Your task to perform on an android device: empty trash in google photos Image 0: 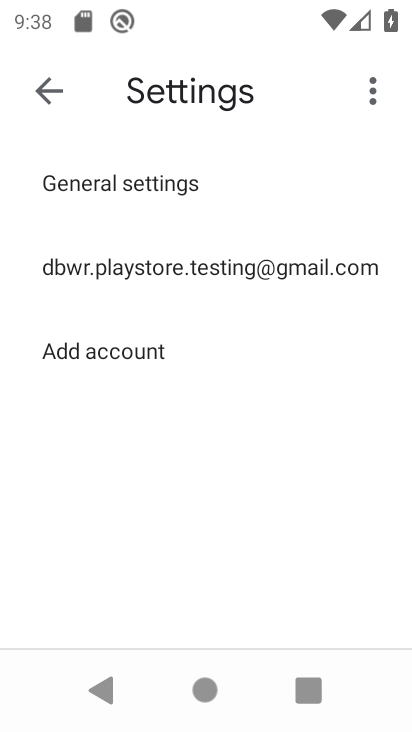
Step 0: click (283, 260)
Your task to perform on an android device: empty trash in google photos Image 1: 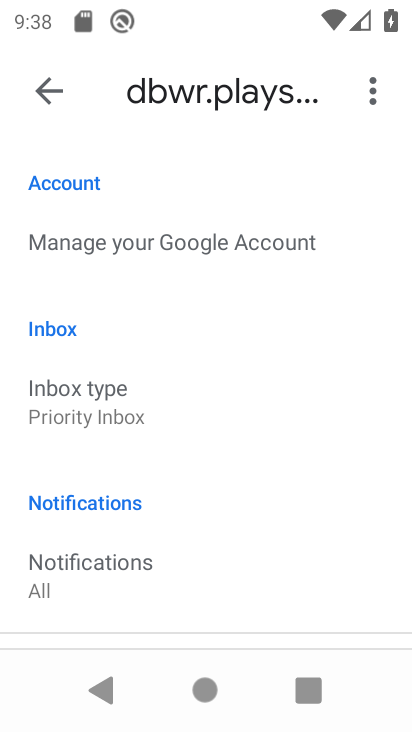
Step 1: press home button
Your task to perform on an android device: empty trash in google photos Image 2: 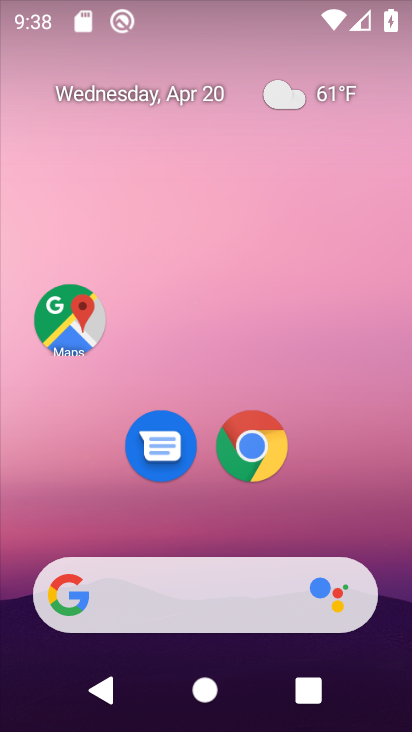
Step 2: drag from (365, 468) to (356, 144)
Your task to perform on an android device: empty trash in google photos Image 3: 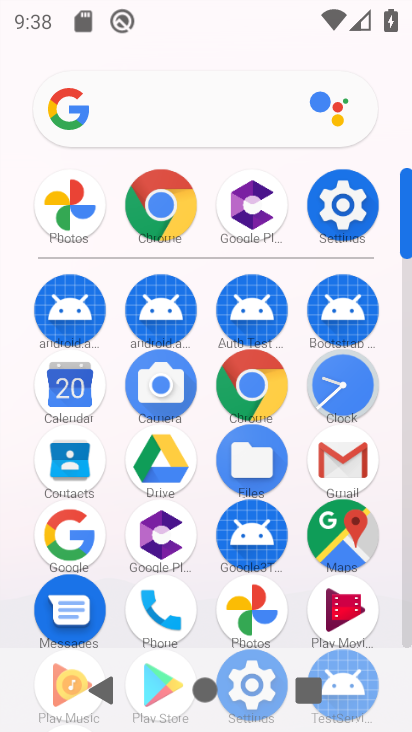
Step 3: click (257, 611)
Your task to perform on an android device: empty trash in google photos Image 4: 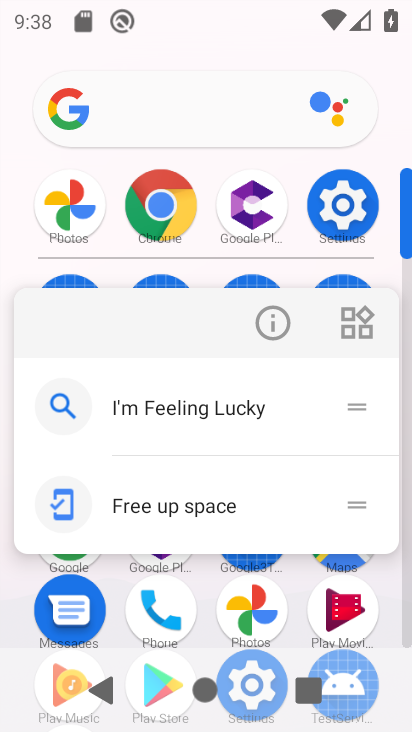
Step 4: click (253, 606)
Your task to perform on an android device: empty trash in google photos Image 5: 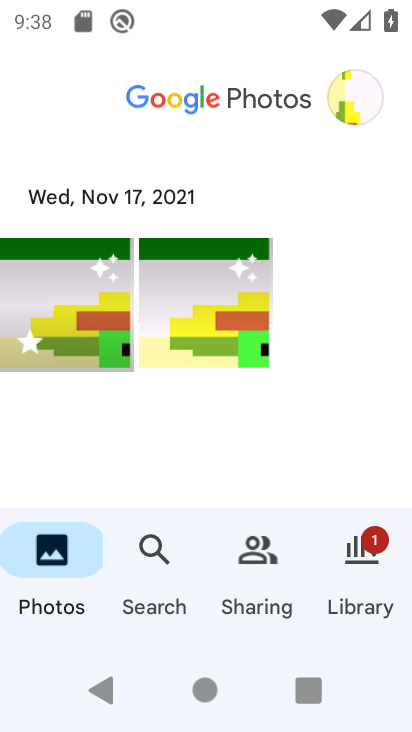
Step 5: click (363, 559)
Your task to perform on an android device: empty trash in google photos Image 6: 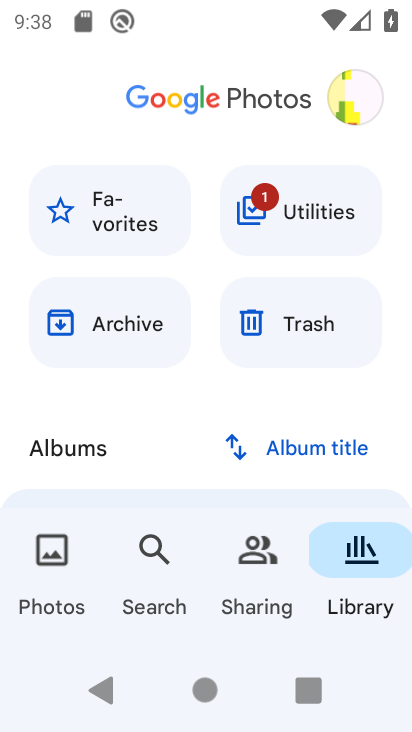
Step 6: click (286, 340)
Your task to perform on an android device: empty trash in google photos Image 7: 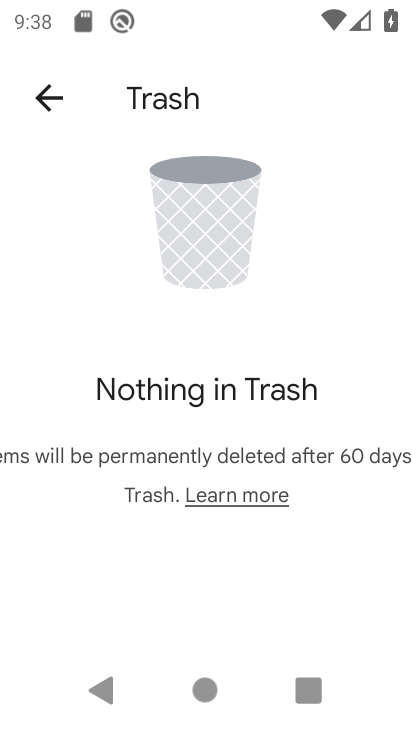
Step 7: task complete